Your task to perform on an android device: What's the weather? Image 0: 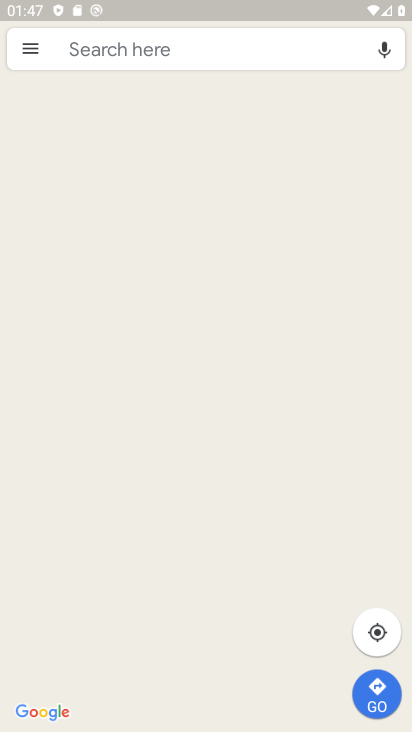
Step 0: click (229, 100)
Your task to perform on an android device: What's the weather? Image 1: 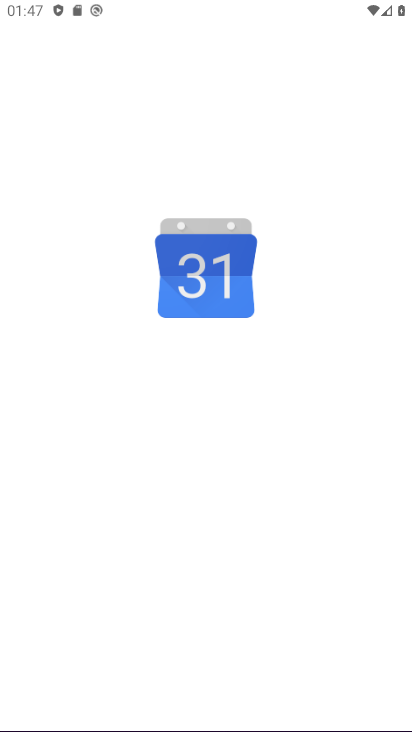
Step 1: drag from (228, 645) to (232, 133)
Your task to perform on an android device: What's the weather? Image 2: 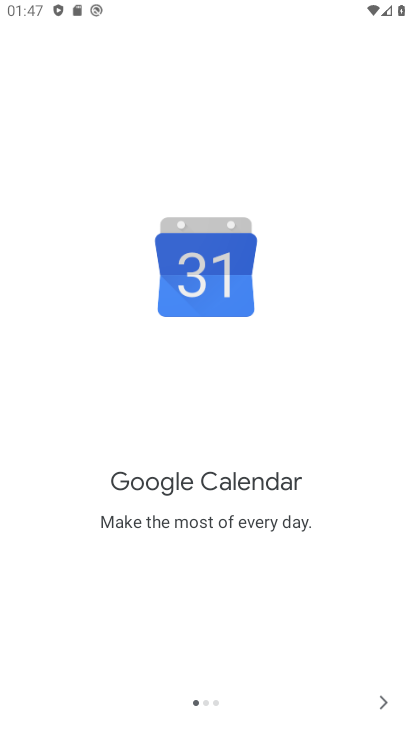
Step 2: press home button
Your task to perform on an android device: What's the weather? Image 3: 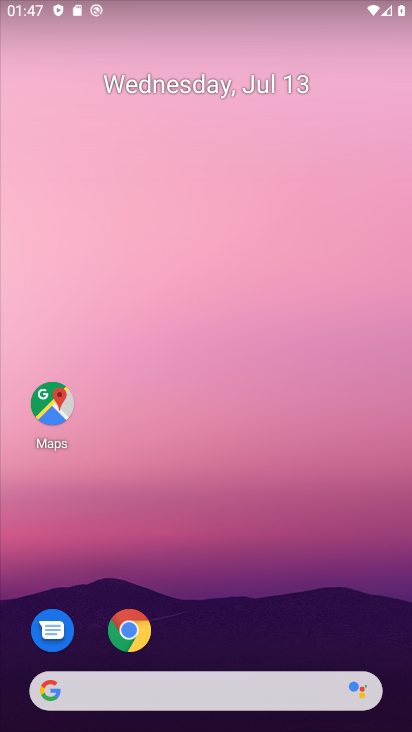
Step 3: drag from (260, 627) to (213, 189)
Your task to perform on an android device: What's the weather? Image 4: 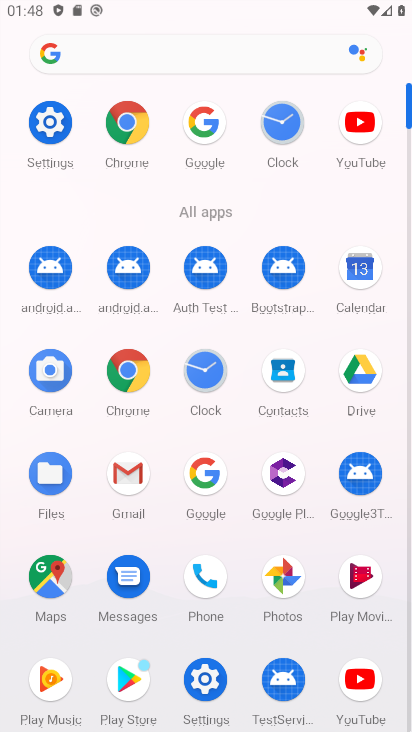
Step 4: click (221, 477)
Your task to perform on an android device: What's the weather? Image 5: 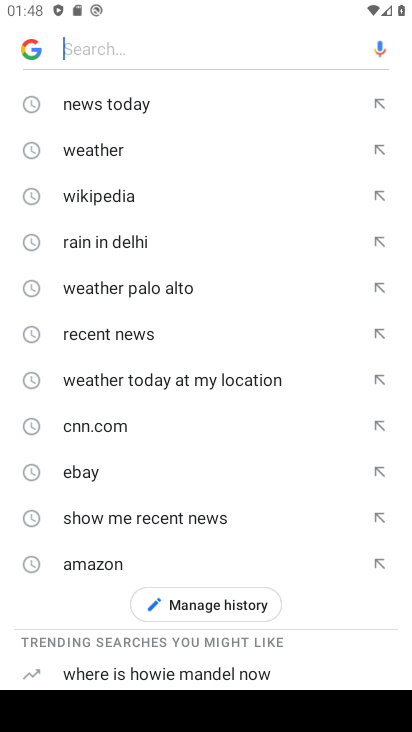
Step 5: click (136, 152)
Your task to perform on an android device: What's the weather? Image 6: 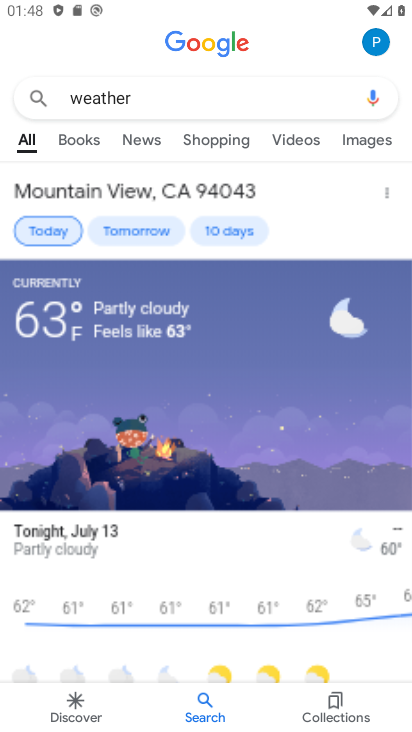
Step 6: task complete